Your task to perform on an android device: open sync settings in chrome Image 0: 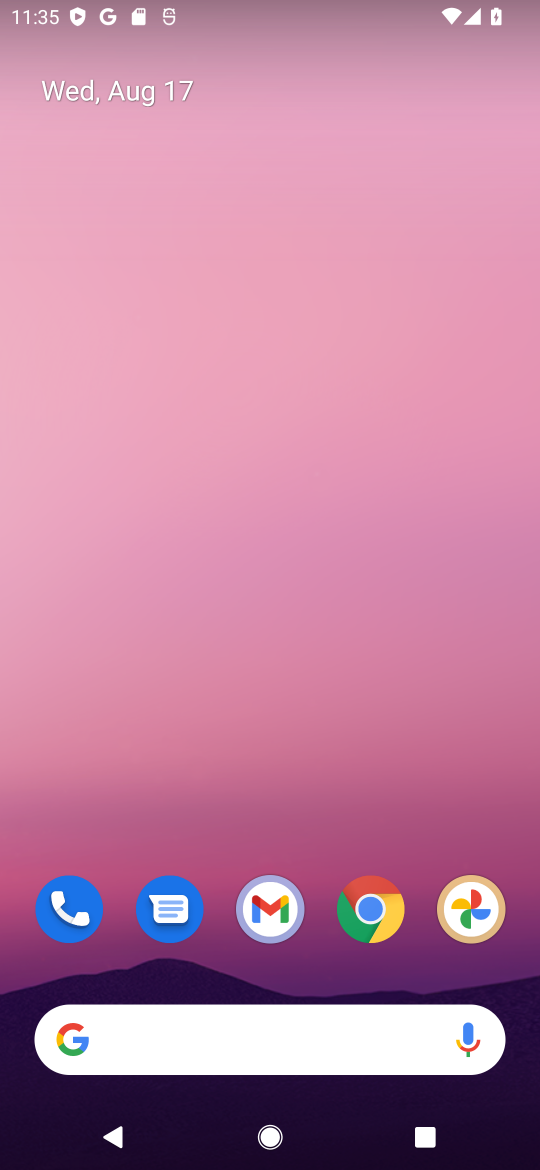
Step 0: click (371, 914)
Your task to perform on an android device: open sync settings in chrome Image 1: 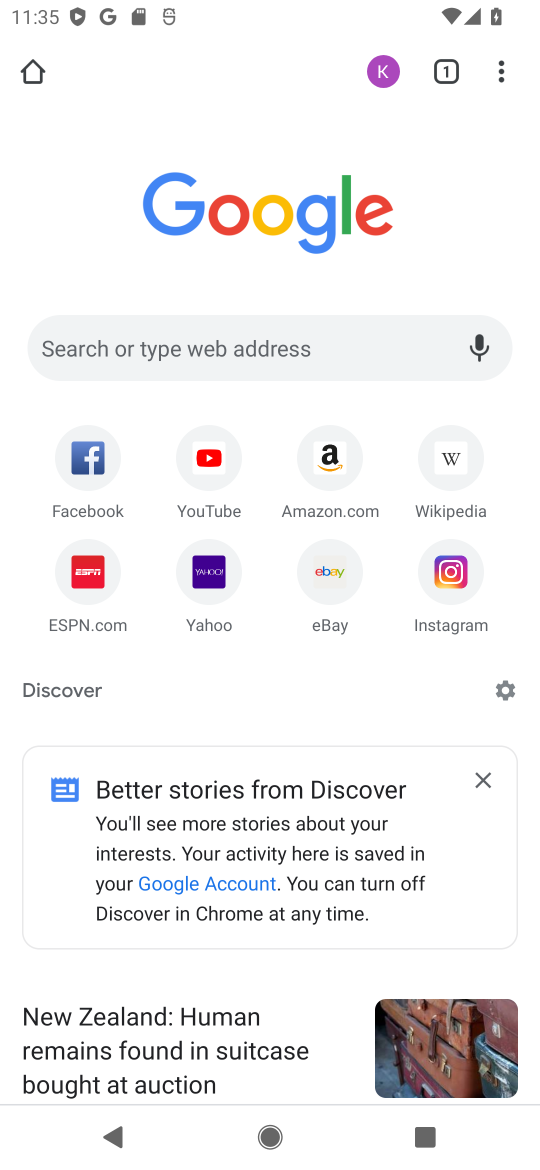
Step 1: click (502, 63)
Your task to perform on an android device: open sync settings in chrome Image 2: 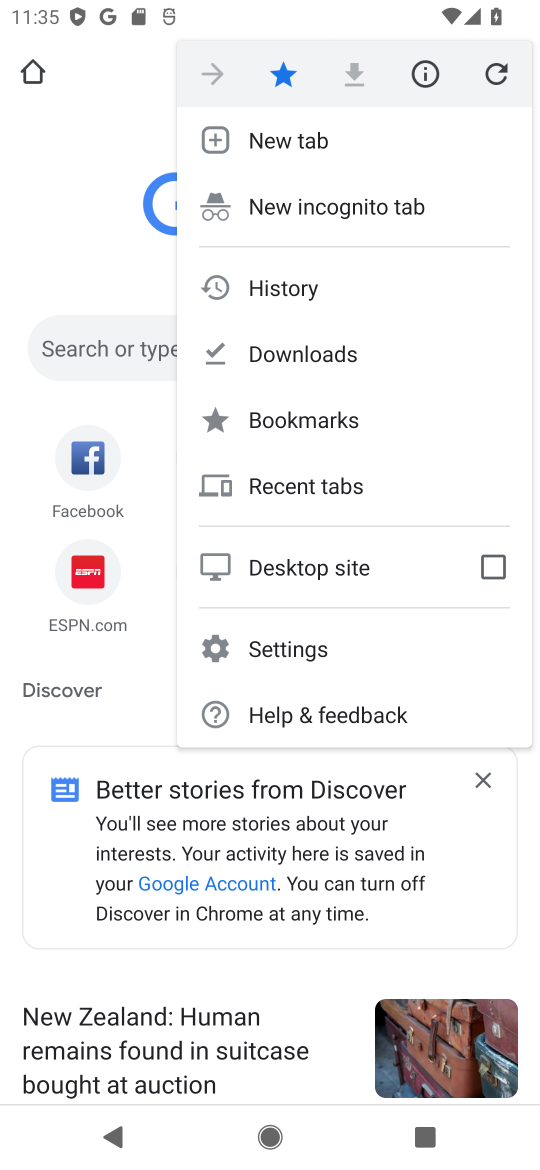
Step 2: click (290, 648)
Your task to perform on an android device: open sync settings in chrome Image 3: 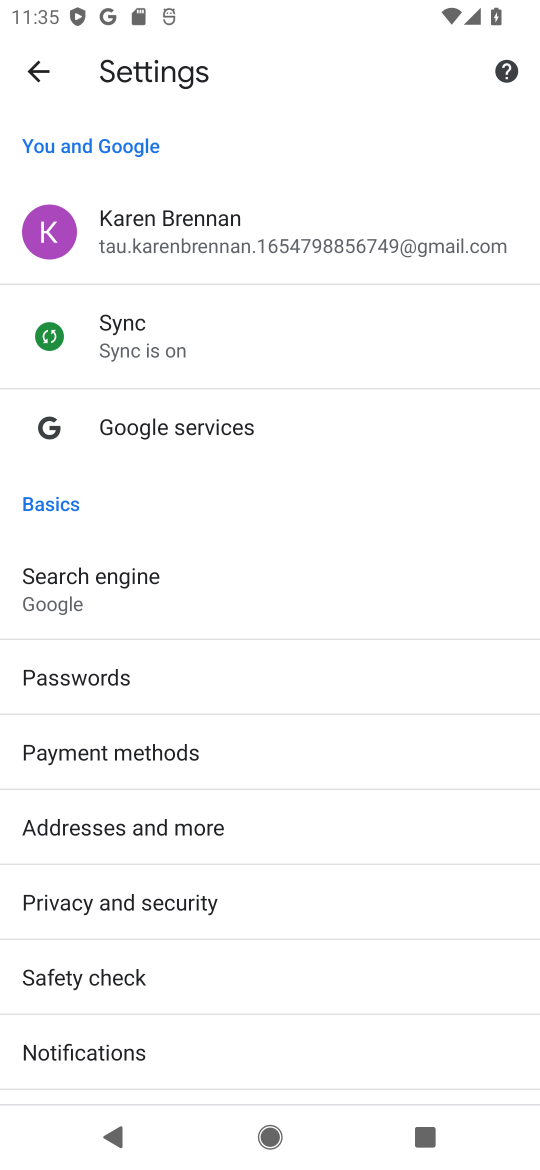
Step 3: click (128, 305)
Your task to perform on an android device: open sync settings in chrome Image 4: 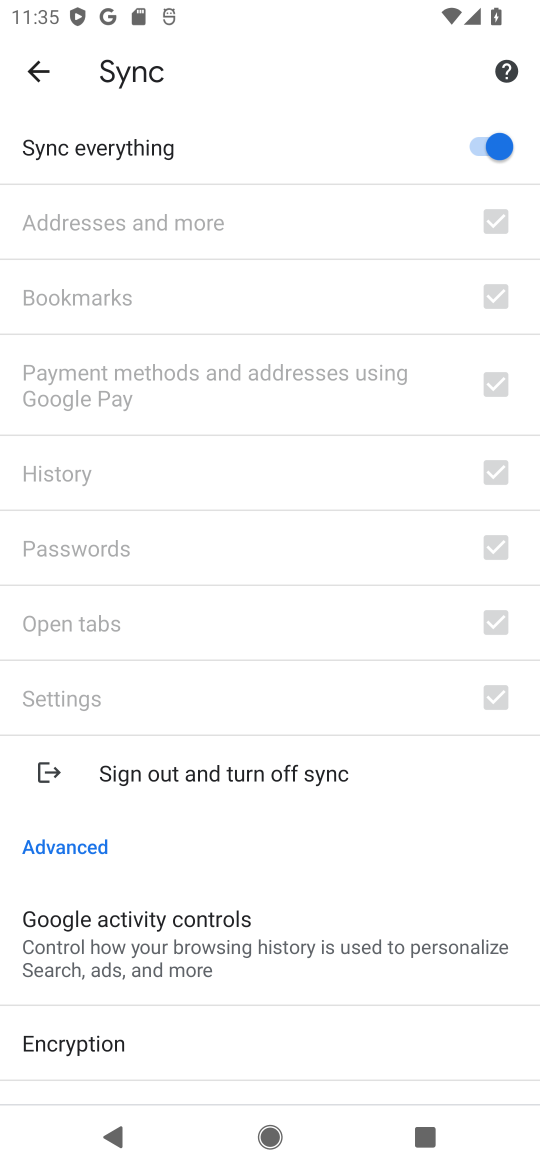
Step 4: task complete